Your task to perform on an android device: snooze an email in the gmail app Image 0: 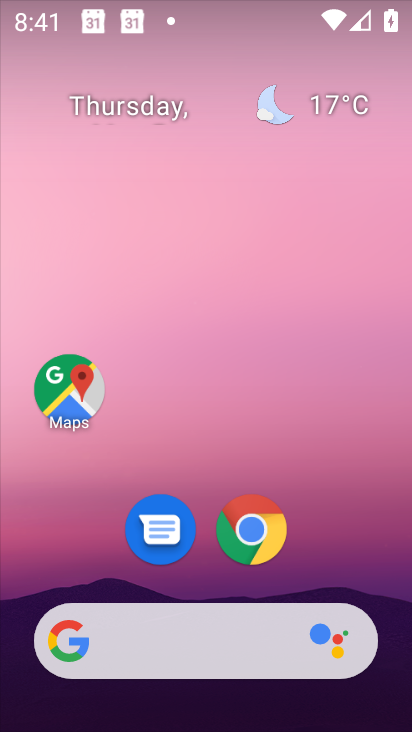
Step 0: drag from (339, 517) to (306, 18)
Your task to perform on an android device: snooze an email in the gmail app Image 1: 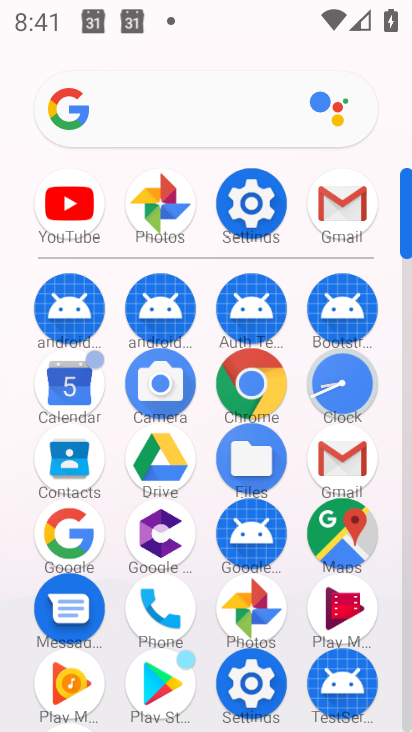
Step 1: click (345, 203)
Your task to perform on an android device: snooze an email in the gmail app Image 2: 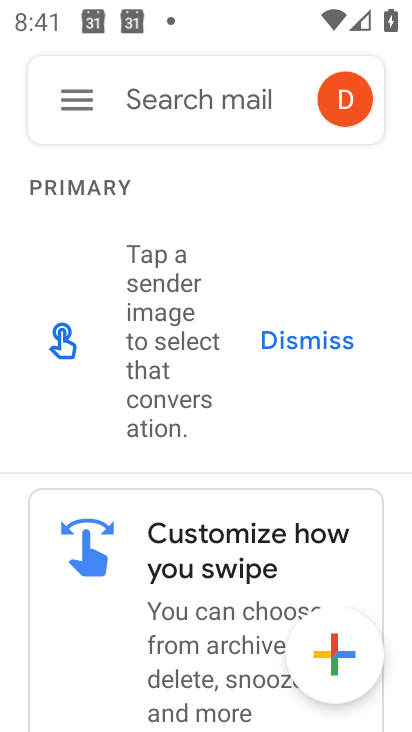
Step 2: click (70, 88)
Your task to perform on an android device: snooze an email in the gmail app Image 3: 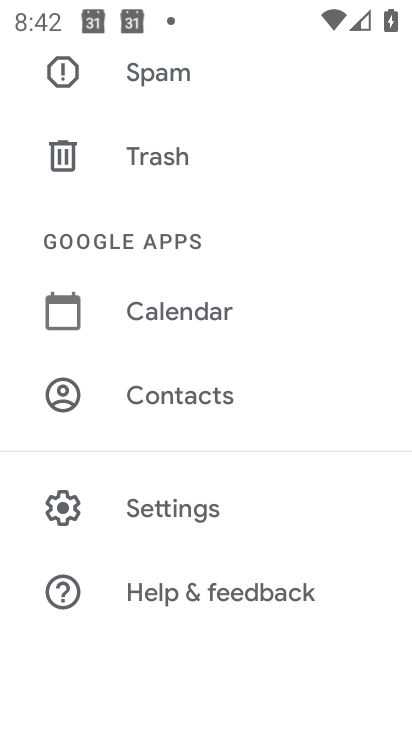
Step 3: drag from (248, 188) to (348, 574)
Your task to perform on an android device: snooze an email in the gmail app Image 4: 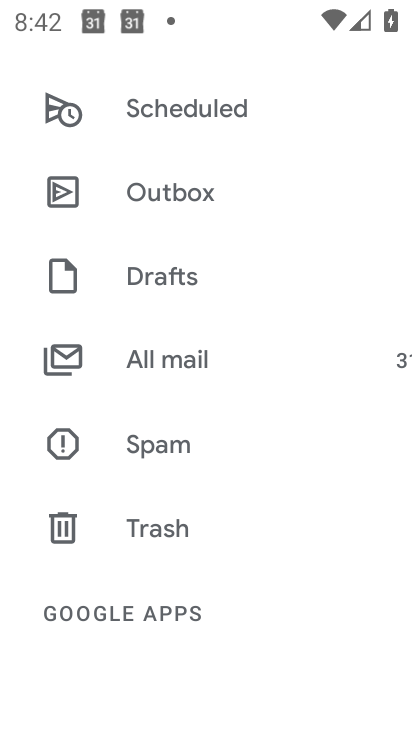
Step 4: click (183, 360)
Your task to perform on an android device: snooze an email in the gmail app Image 5: 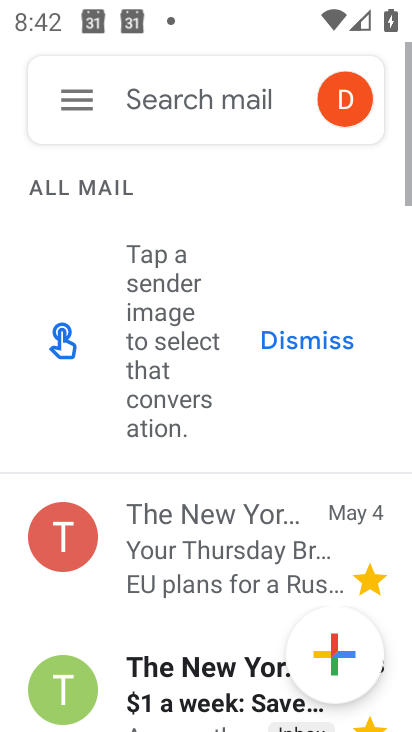
Step 5: click (190, 532)
Your task to perform on an android device: snooze an email in the gmail app Image 6: 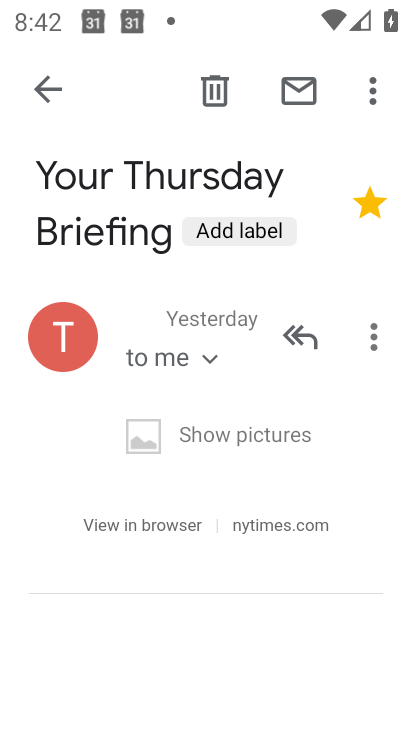
Step 6: click (370, 86)
Your task to perform on an android device: snooze an email in the gmail app Image 7: 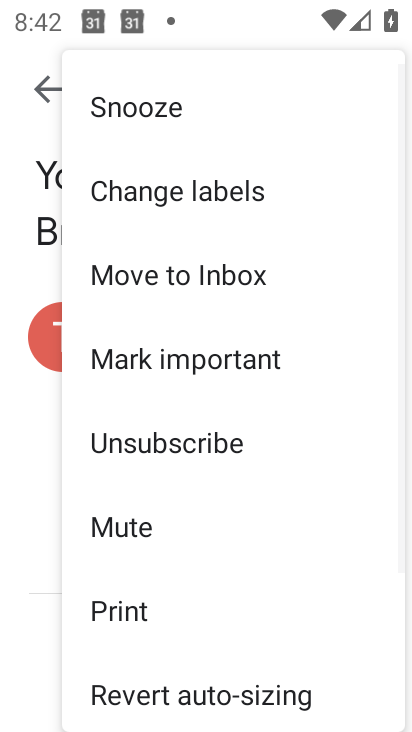
Step 7: click (148, 102)
Your task to perform on an android device: snooze an email in the gmail app Image 8: 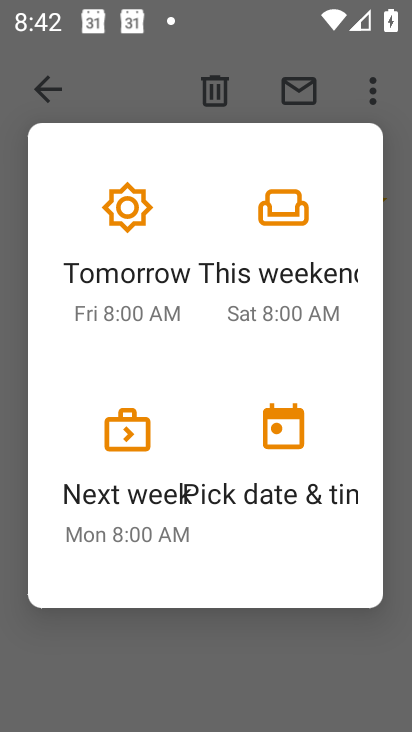
Step 8: click (118, 224)
Your task to perform on an android device: snooze an email in the gmail app Image 9: 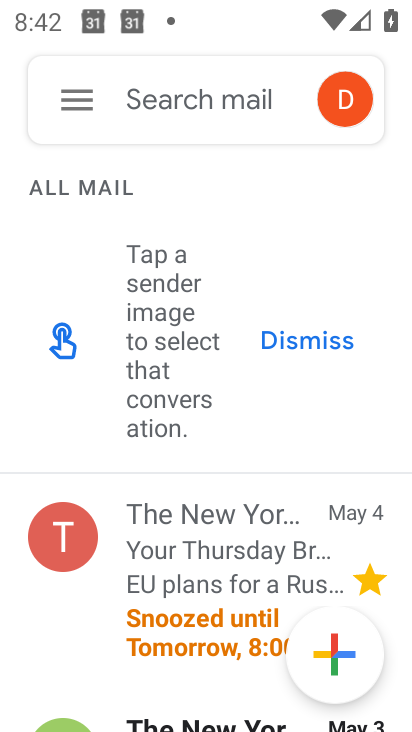
Step 9: task complete